Your task to perform on an android device: Open the calendar app, open the side menu, and click the "Day" option Image 0: 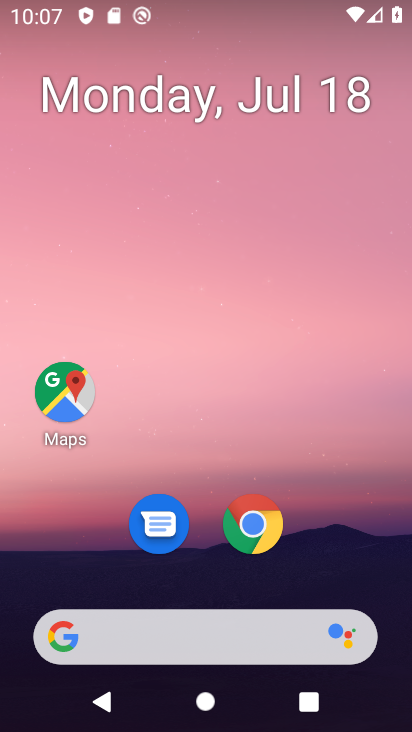
Step 0: drag from (201, 449) to (238, 16)
Your task to perform on an android device: Open the calendar app, open the side menu, and click the "Day" option Image 1: 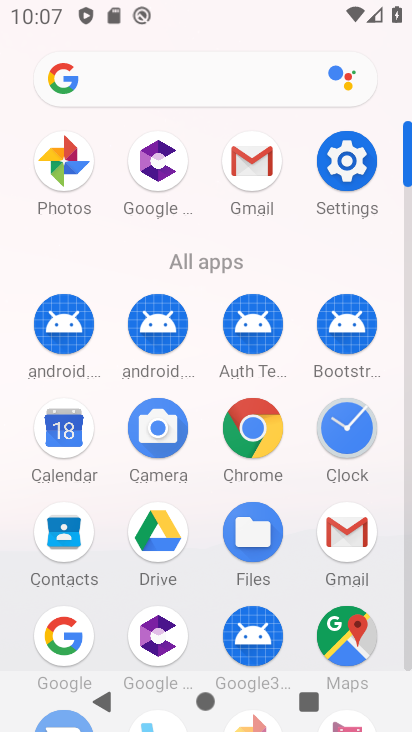
Step 1: click (57, 429)
Your task to perform on an android device: Open the calendar app, open the side menu, and click the "Day" option Image 2: 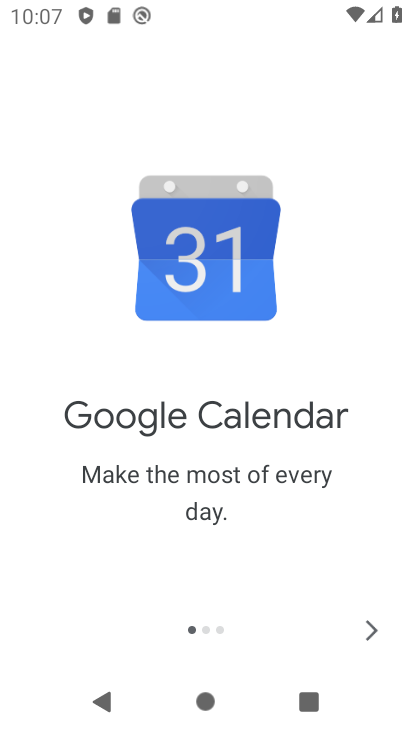
Step 2: click (372, 630)
Your task to perform on an android device: Open the calendar app, open the side menu, and click the "Day" option Image 3: 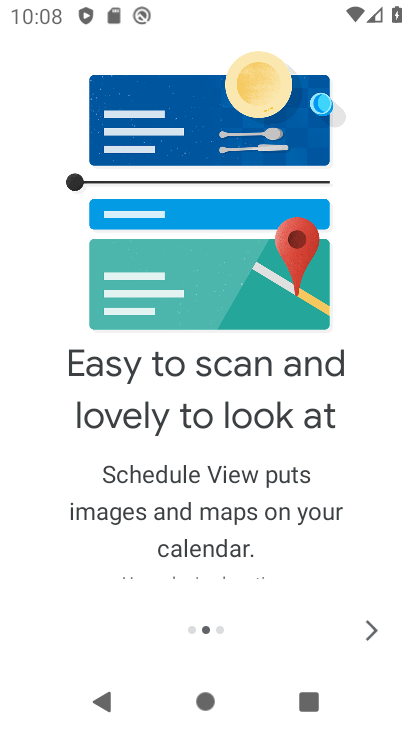
Step 3: click (374, 633)
Your task to perform on an android device: Open the calendar app, open the side menu, and click the "Day" option Image 4: 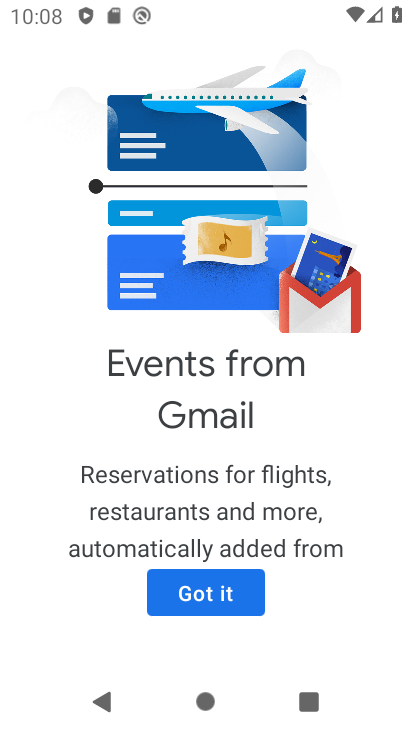
Step 4: click (252, 597)
Your task to perform on an android device: Open the calendar app, open the side menu, and click the "Day" option Image 5: 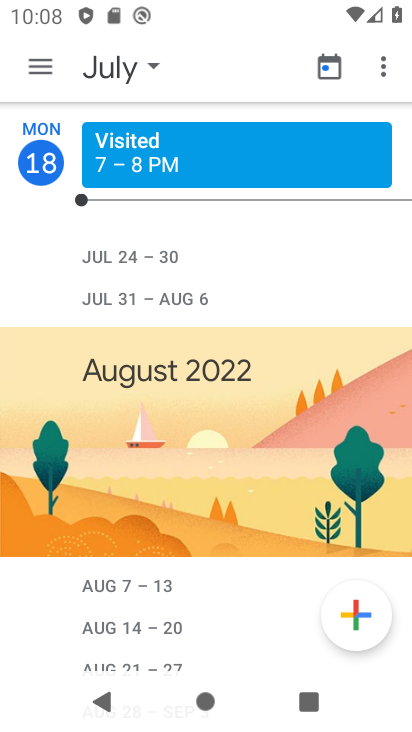
Step 5: click (42, 58)
Your task to perform on an android device: Open the calendar app, open the side menu, and click the "Day" option Image 6: 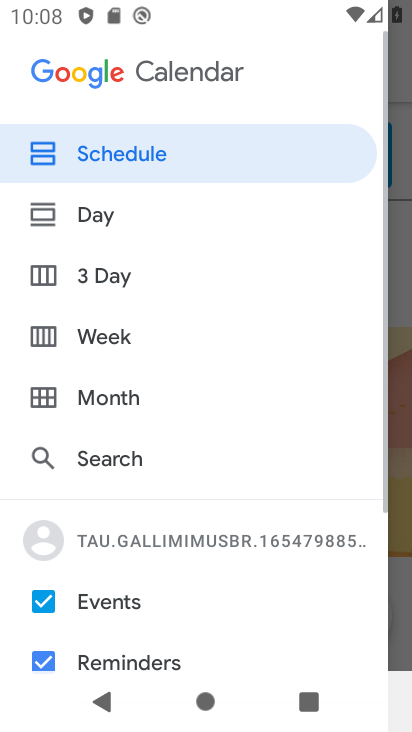
Step 6: click (44, 217)
Your task to perform on an android device: Open the calendar app, open the side menu, and click the "Day" option Image 7: 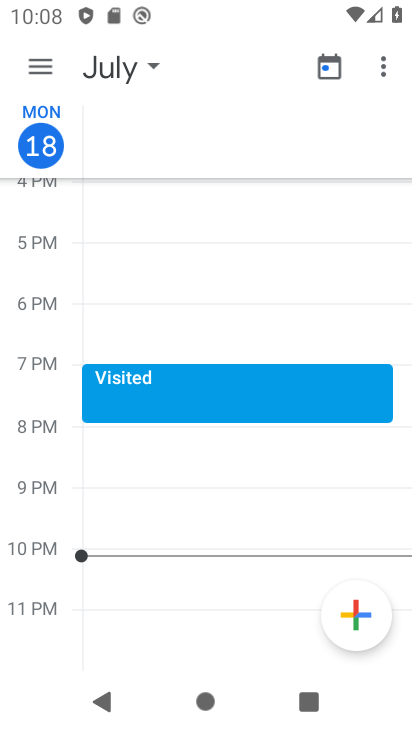
Step 7: task complete